Your task to perform on an android device: turn vacation reply on in the gmail app Image 0: 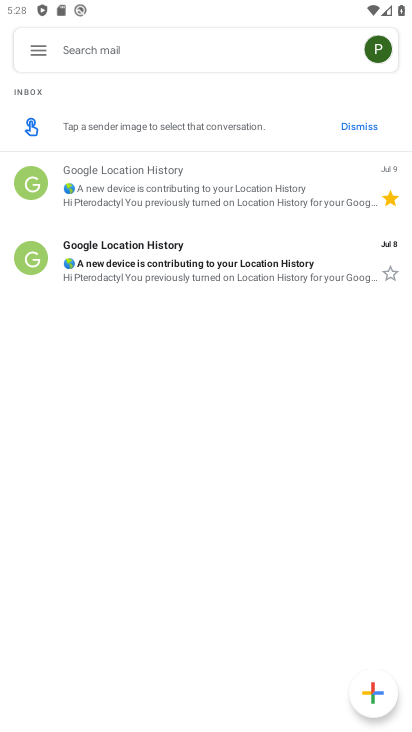
Step 0: press home button
Your task to perform on an android device: turn vacation reply on in the gmail app Image 1: 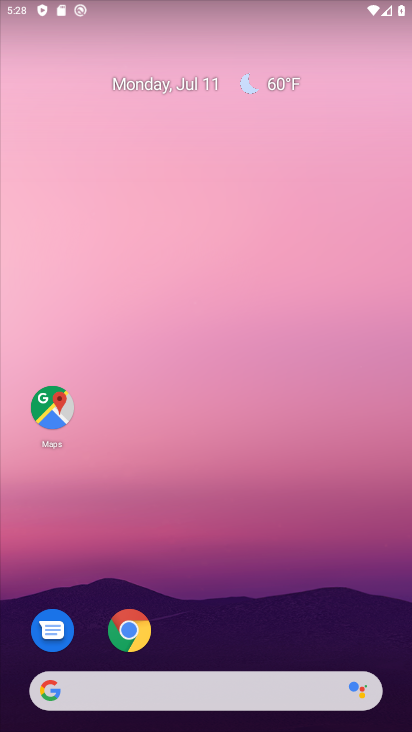
Step 1: drag from (188, 607) to (170, 217)
Your task to perform on an android device: turn vacation reply on in the gmail app Image 2: 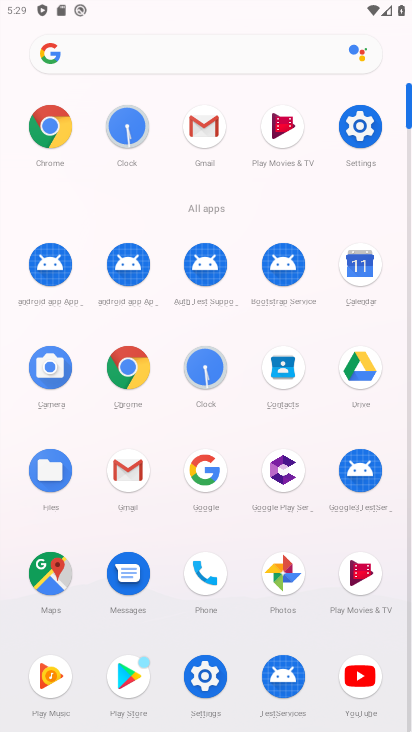
Step 2: click (201, 130)
Your task to perform on an android device: turn vacation reply on in the gmail app Image 3: 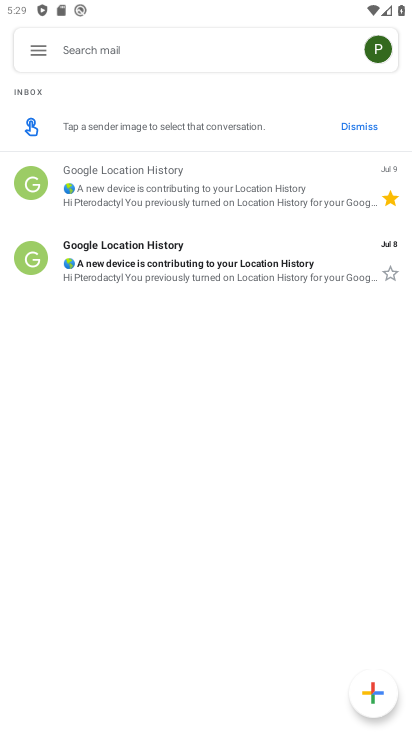
Step 3: click (33, 53)
Your task to perform on an android device: turn vacation reply on in the gmail app Image 4: 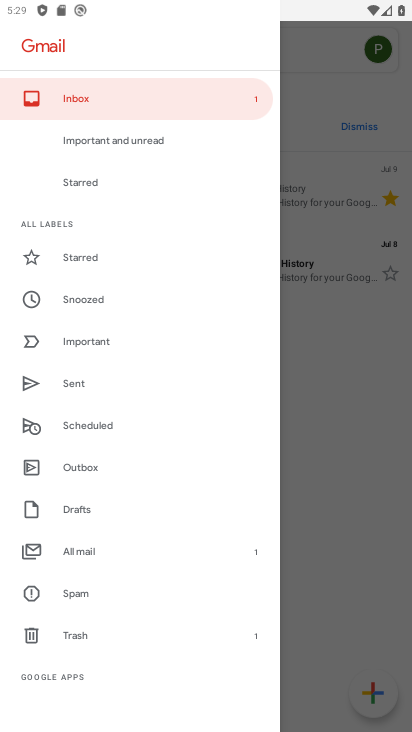
Step 4: click (126, 601)
Your task to perform on an android device: turn vacation reply on in the gmail app Image 5: 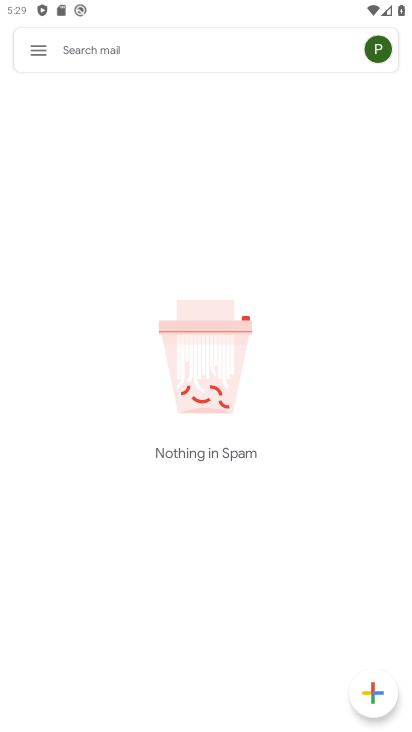
Step 5: click (33, 49)
Your task to perform on an android device: turn vacation reply on in the gmail app Image 6: 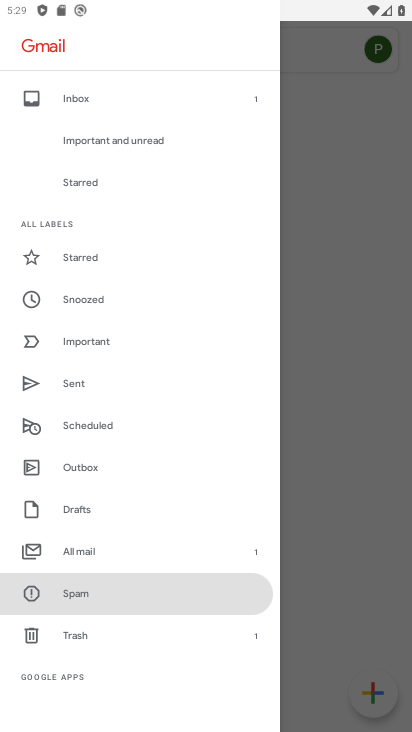
Step 6: drag from (91, 476) to (86, 241)
Your task to perform on an android device: turn vacation reply on in the gmail app Image 7: 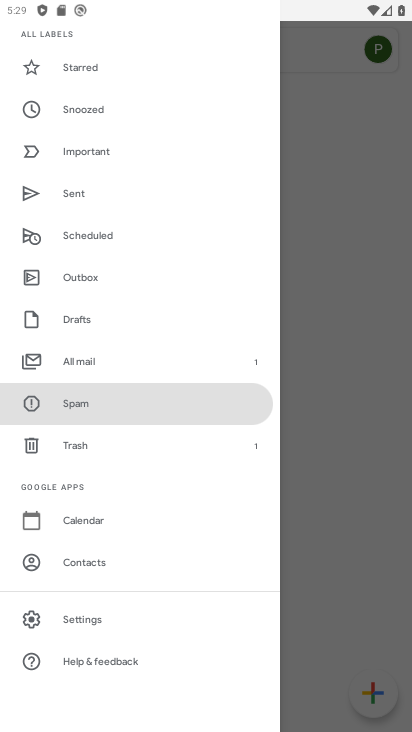
Step 7: click (85, 621)
Your task to perform on an android device: turn vacation reply on in the gmail app Image 8: 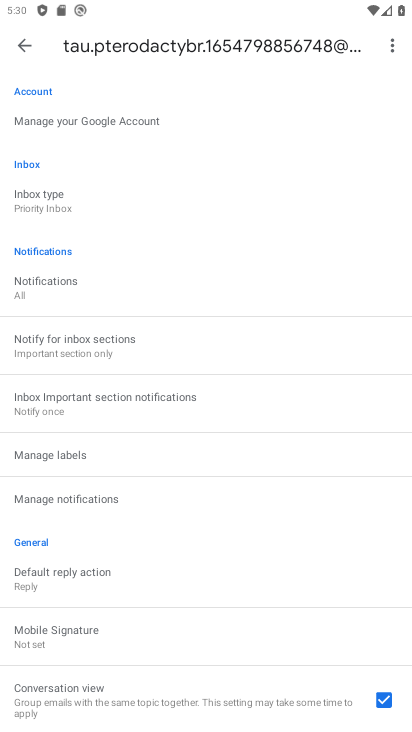
Step 8: drag from (167, 559) to (153, 266)
Your task to perform on an android device: turn vacation reply on in the gmail app Image 9: 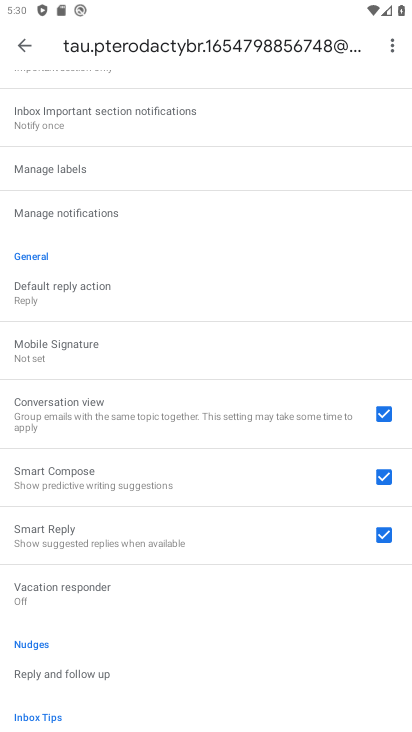
Step 9: drag from (146, 597) to (146, 421)
Your task to perform on an android device: turn vacation reply on in the gmail app Image 10: 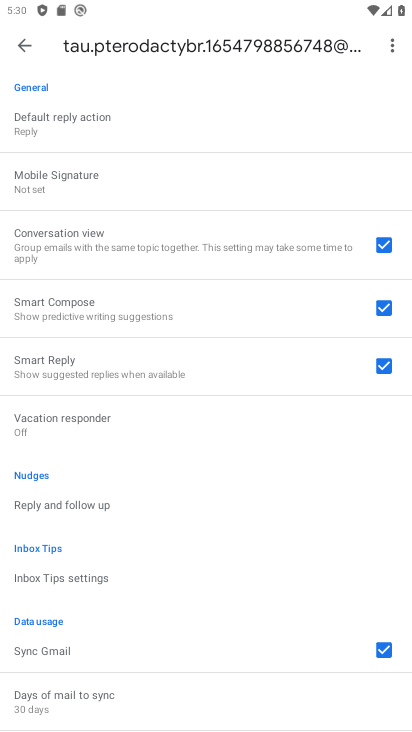
Step 10: click (69, 420)
Your task to perform on an android device: turn vacation reply on in the gmail app Image 11: 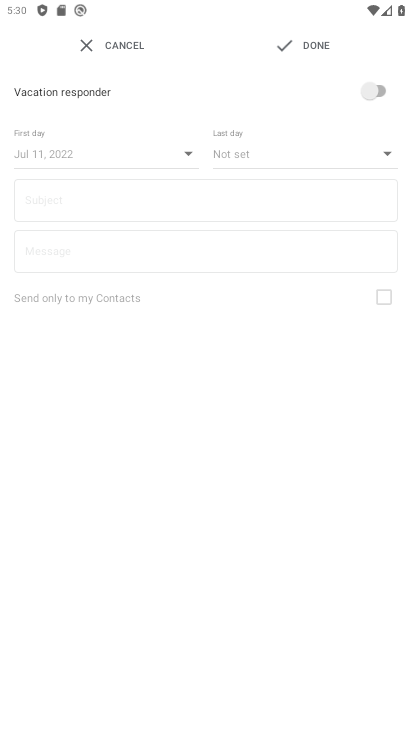
Step 11: click (383, 92)
Your task to perform on an android device: turn vacation reply on in the gmail app Image 12: 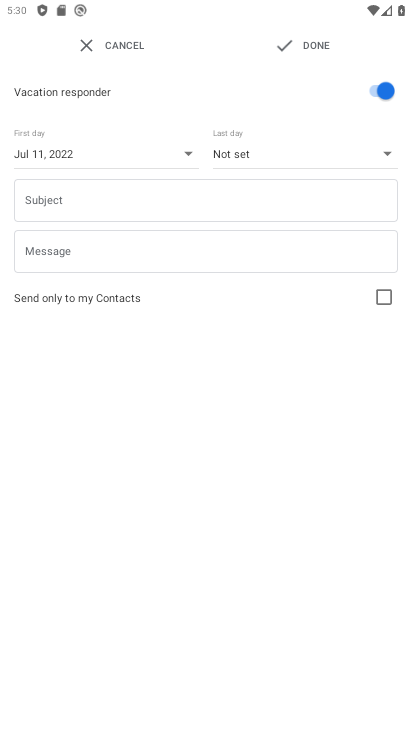
Step 12: task complete